Your task to perform on an android device: Go to eBay Image 0: 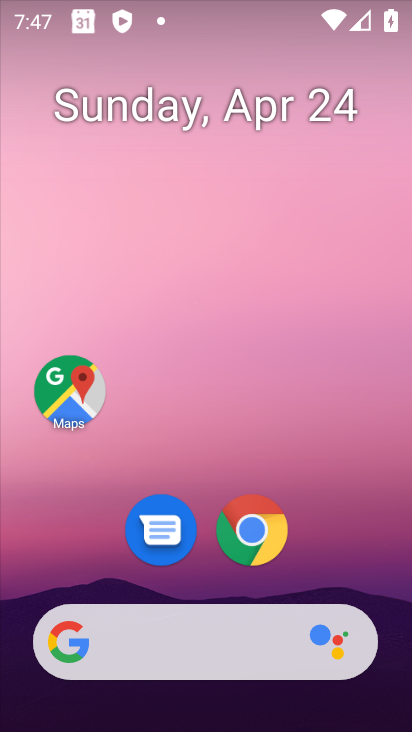
Step 0: click (244, 525)
Your task to perform on an android device: Go to eBay Image 1: 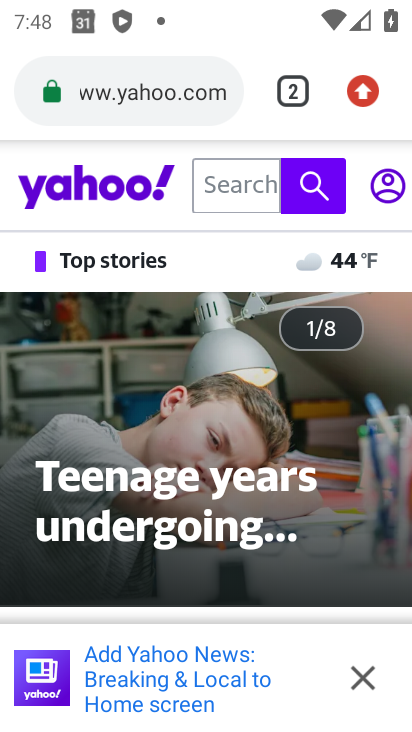
Step 1: click (288, 88)
Your task to perform on an android device: Go to eBay Image 2: 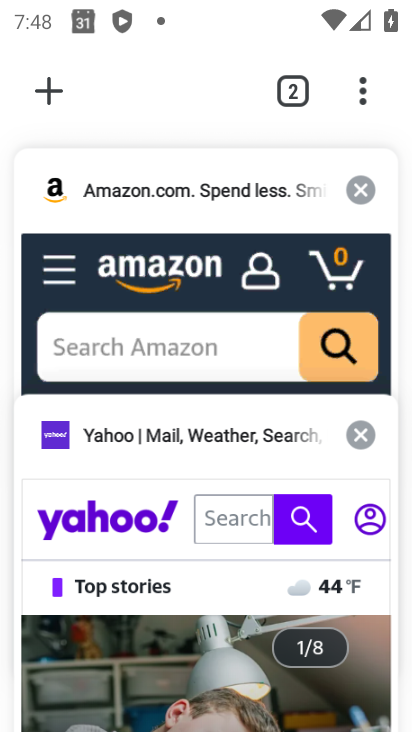
Step 2: click (55, 81)
Your task to perform on an android device: Go to eBay Image 3: 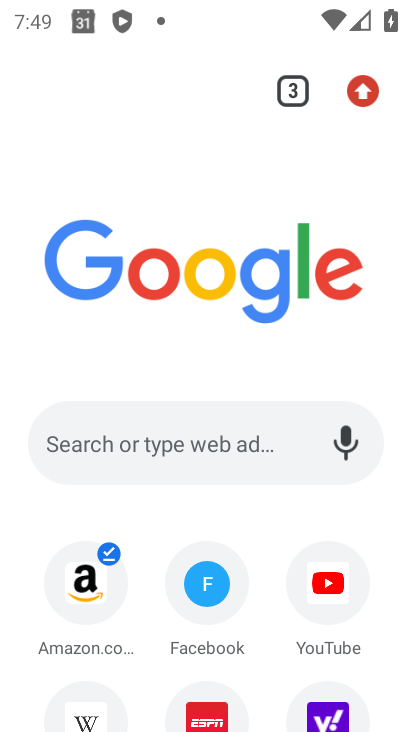
Step 3: click (193, 425)
Your task to perform on an android device: Go to eBay Image 4: 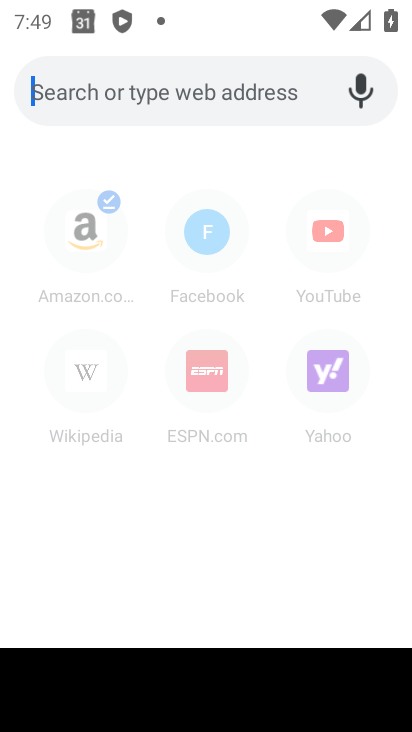
Step 4: type "ebay"
Your task to perform on an android device: Go to eBay Image 5: 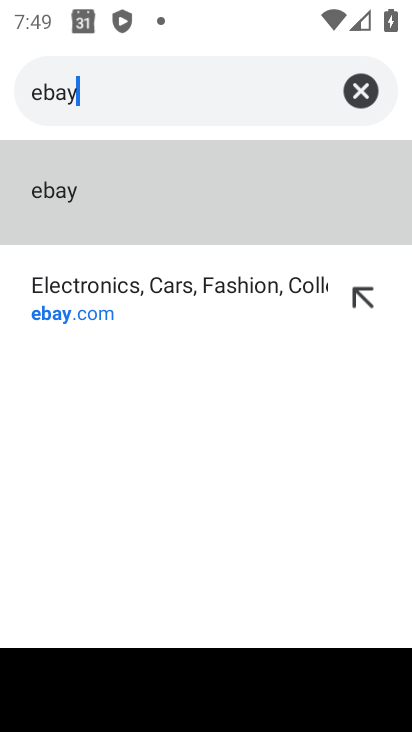
Step 5: click (111, 273)
Your task to perform on an android device: Go to eBay Image 6: 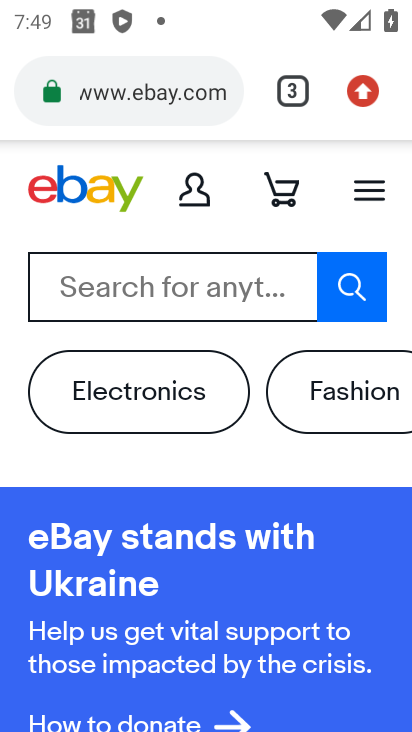
Step 6: task complete